Your task to perform on an android device: visit the assistant section in the google photos Image 0: 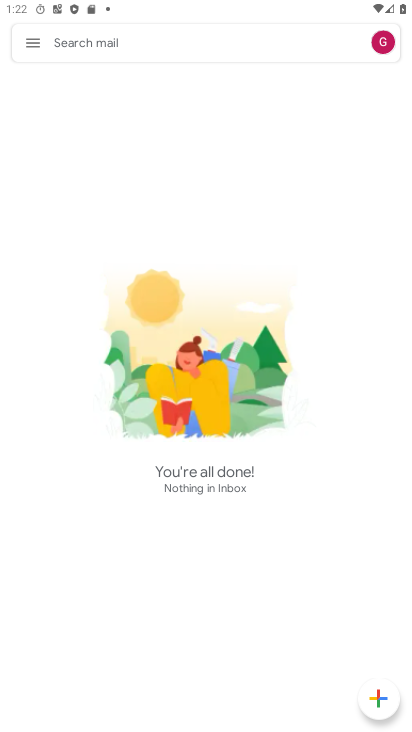
Step 0: drag from (261, 641) to (298, 385)
Your task to perform on an android device: visit the assistant section in the google photos Image 1: 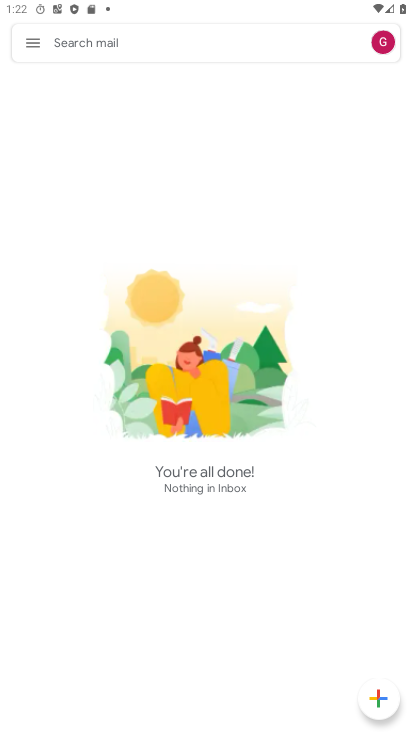
Step 1: press home button
Your task to perform on an android device: visit the assistant section in the google photos Image 2: 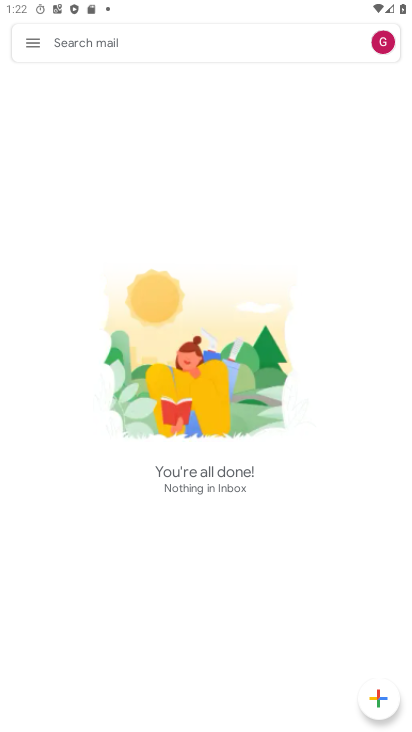
Step 2: press home button
Your task to perform on an android device: visit the assistant section in the google photos Image 3: 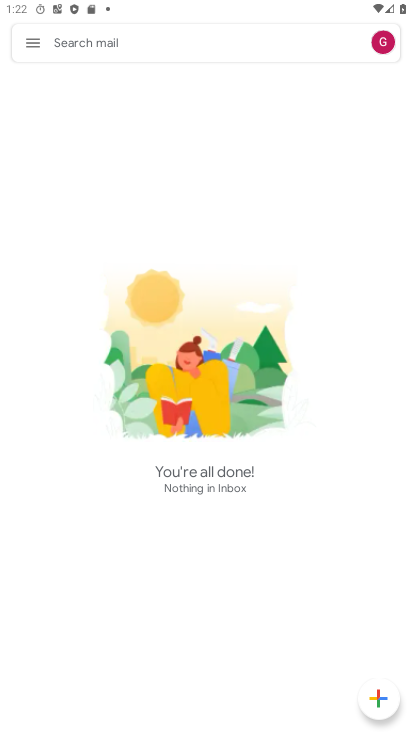
Step 3: click (281, 229)
Your task to perform on an android device: visit the assistant section in the google photos Image 4: 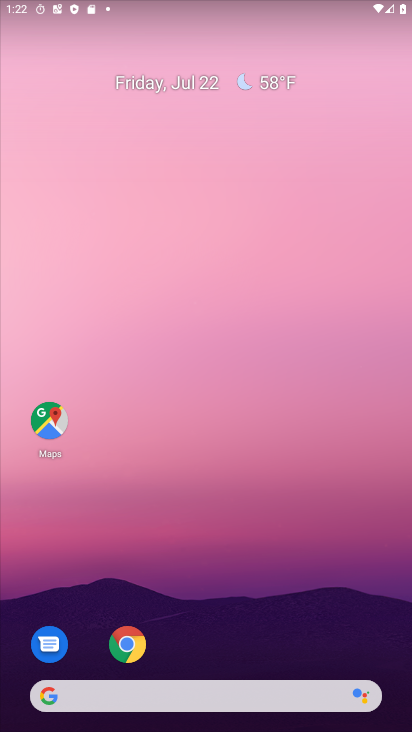
Step 4: drag from (184, 611) to (178, 168)
Your task to perform on an android device: visit the assistant section in the google photos Image 5: 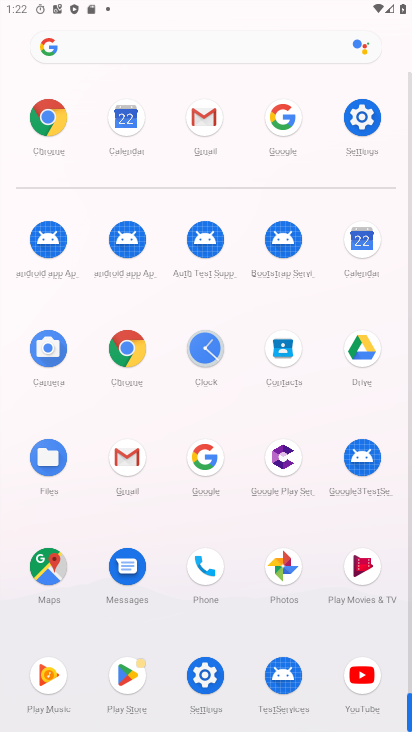
Step 5: click (287, 557)
Your task to perform on an android device: visit the assistant section in the google photos Image 6: 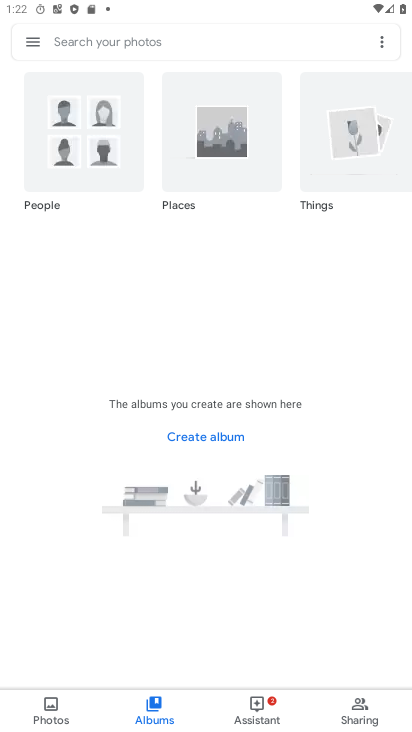
Step 6: click (267, 702)
Your task to perform on an android device: visit the assistant section in the google photos Image 7: 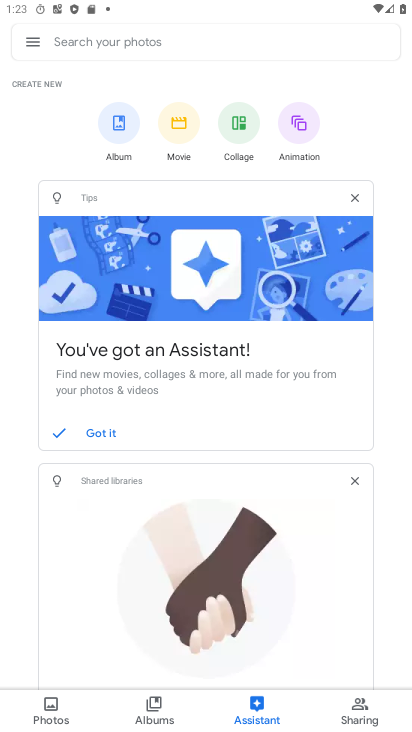
Step 7: task complete